Your task to perform on an android device: turn on the 24-hour format for clock Image 0: 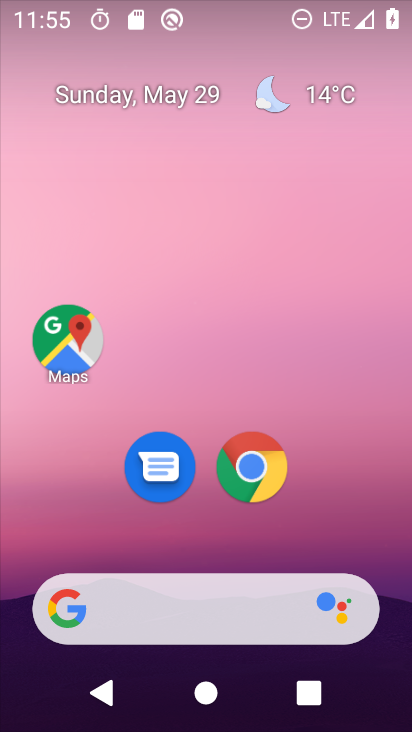
Step 0: drag from (200, 534) to (181, 167)
Your task to perform on an android device: turn on the 24-hour format for clock Image 1: 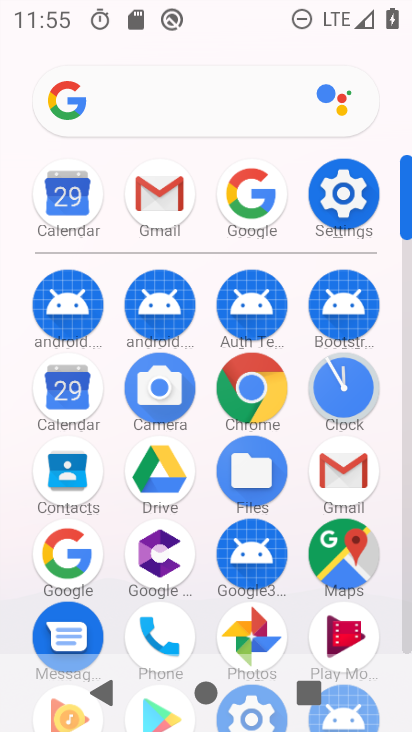
Step 1: click (346, 390)
Your task to perform on an android device: turn on the 24-hour format for clock Image 2: 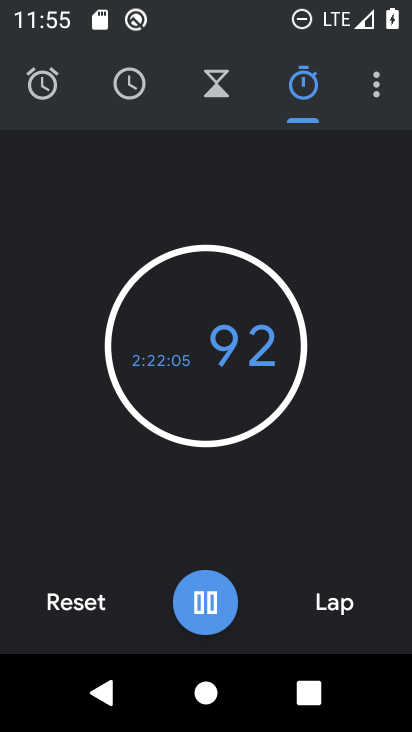
Step 2: click (376, 88)
Your task to perform on an android device: turn on the 24-hour format for clock Image 3: 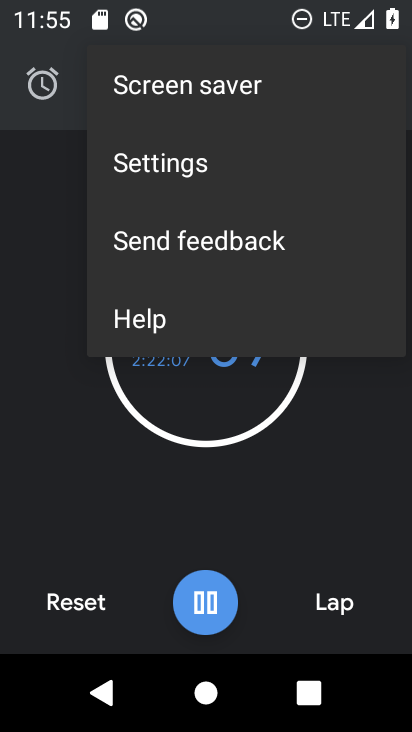
Step 3: click (232, 166)
Your task to perform on an android device: turn on the 24-hour format for clock Image 4: 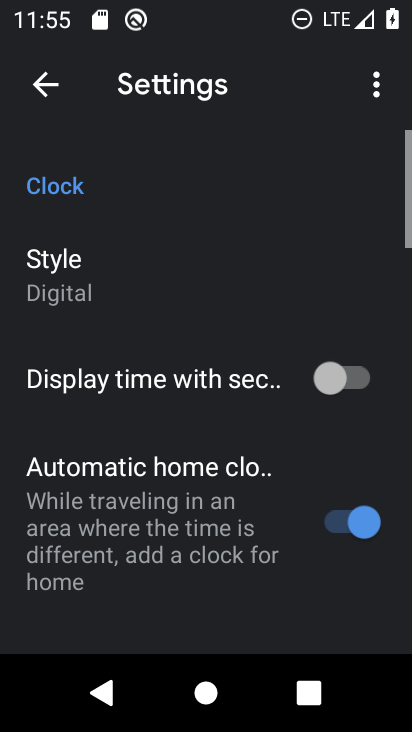
Step 4: drag from (166, 497) to (184, 173)
Your task to perform on an android device: turn on the 24-hour format for clock Image 5: 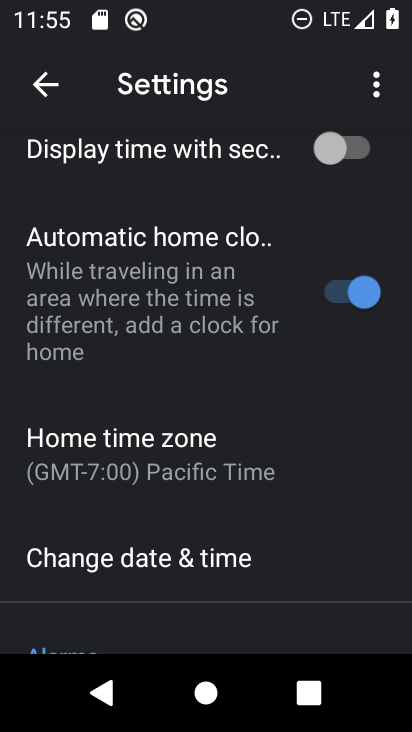
Step 5: drag from (203, 525) to (193, 273)
Your task to perform on an android device: turn on the 24-hour format for clock Image 6: 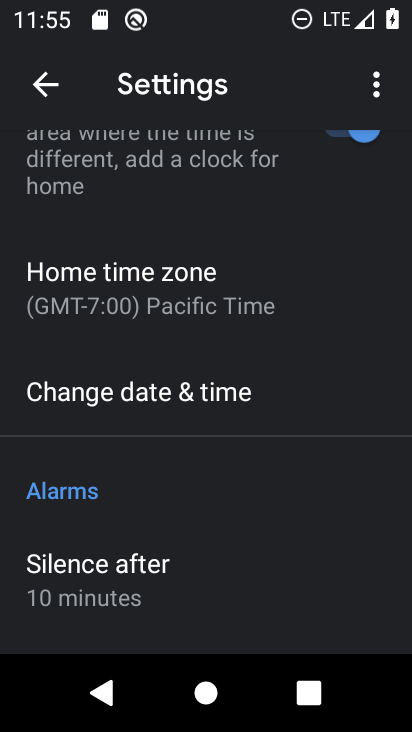
Step 6: click (194, 357)
Your task to perform on an android device: turn on the 24-hour format for clock Image 7: 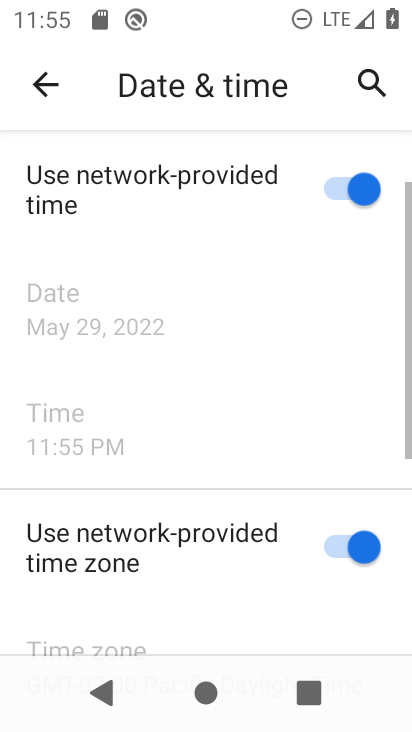
Step 7: click (209, 200)
Your task to perform on an android device: turn on the 24-hour format for clock Image 8: 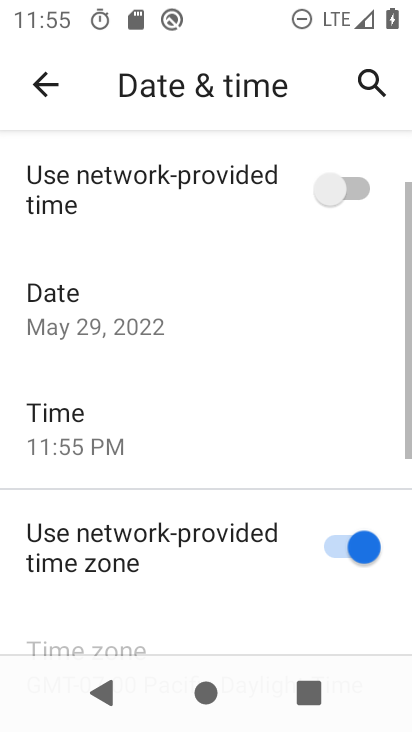
Step 8: drag from (255, 516) to (244, 248)
Your task to perform on an android device: turn on the 24-hour format for clock Image 9: 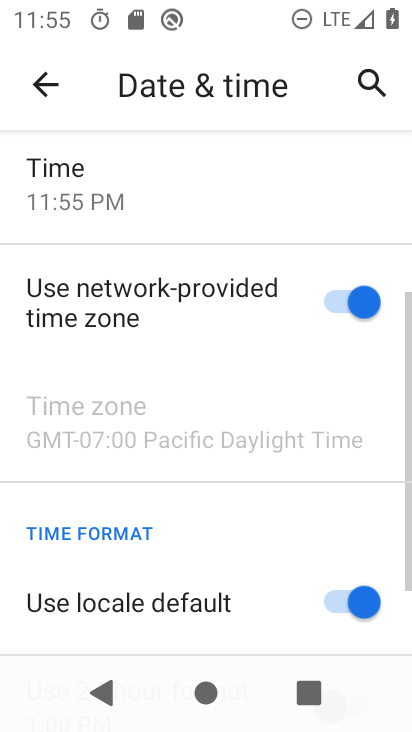
Step 9: drag from (298, 221) to (293, 534)
Your task to perform on an android device: turn on the 24-hour format for clock Image 10: 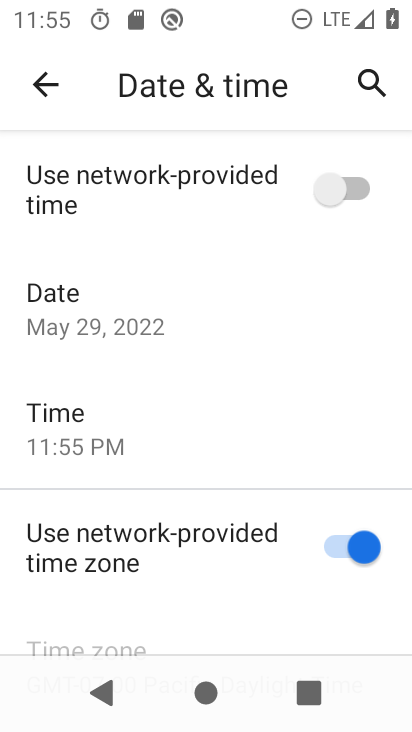
Step 10: drag from (212, 538) to (213, 230)
Your task to perform on an android device: turn on the 24-hour format for clock Image 11: 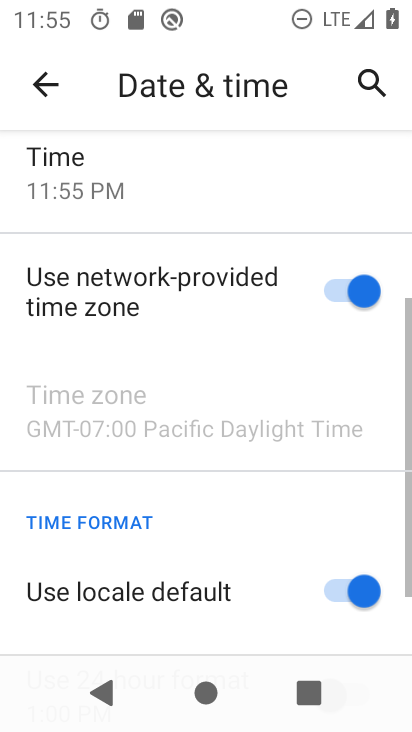
Step 11: drag from (218, 535) to (218, 236)
Your task to perform on an android device: turn on the 24-hour format for clock Image 12: 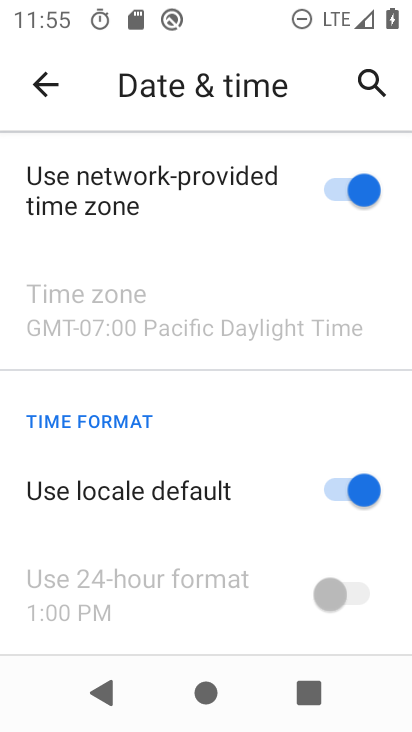
Step 12: click (350, 483)
Your task to perform on an android device: turn on the 24-hour format for clock Image 13: 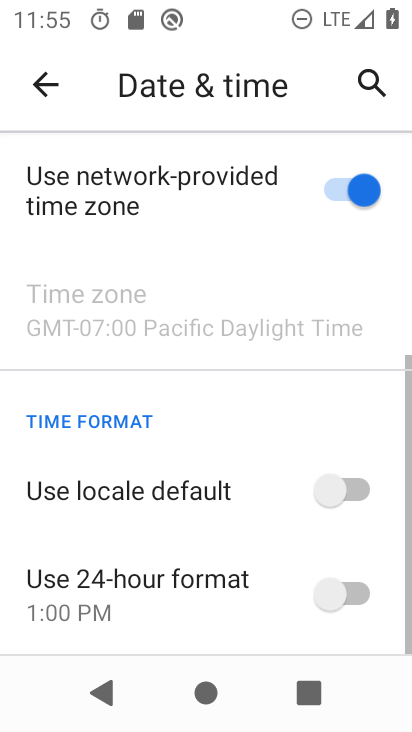
Step 13: click (358, 594)
Your task to perform on an android device: turn on the 24-hour format for clock Image 14: 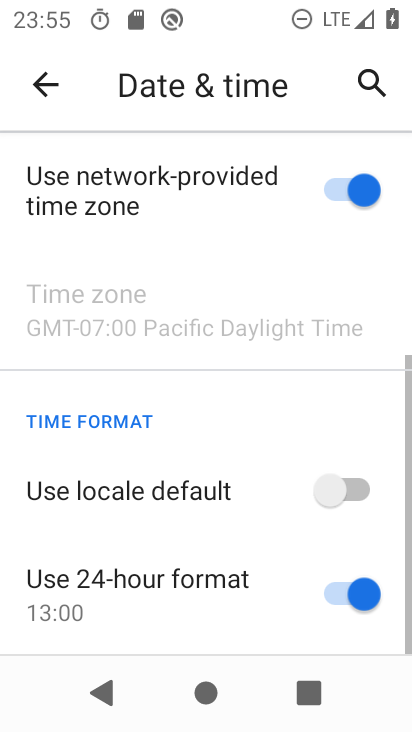
Step 14: task complete